Your task to perform on an android device: open device folders in google photos Image 0: 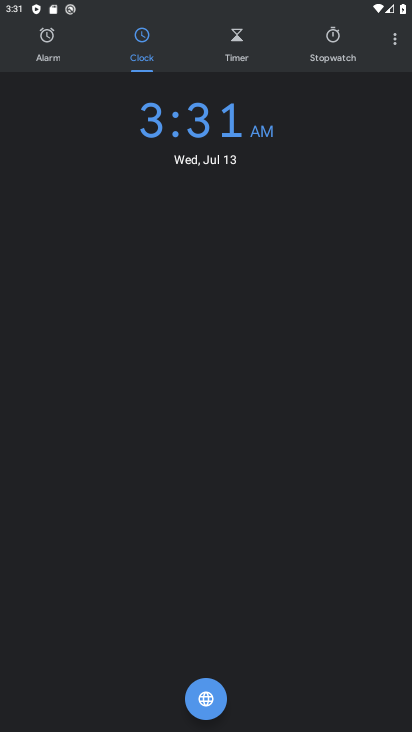
Step 0: press home button
Your task to perform on an android device: open device folders in google photos Image 1: 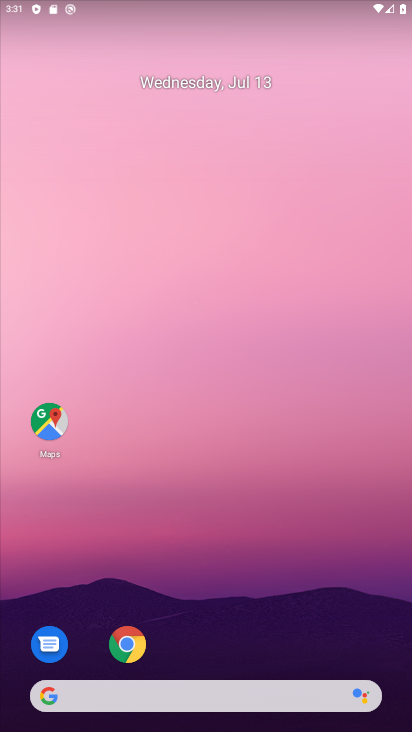
Step 1: drag from (251, 586) to (168, 0)
Your task to perform on an android device: open device folders in google photos Image 2: 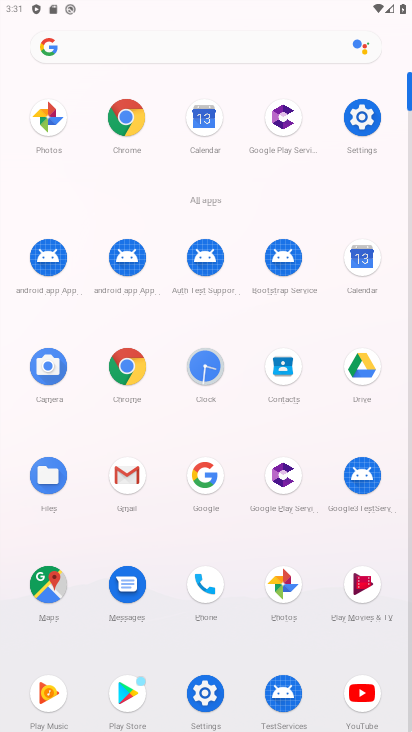
Step 2: click (297, 584)
Your task to perform on an android device: open device folders in google photos Image 3: 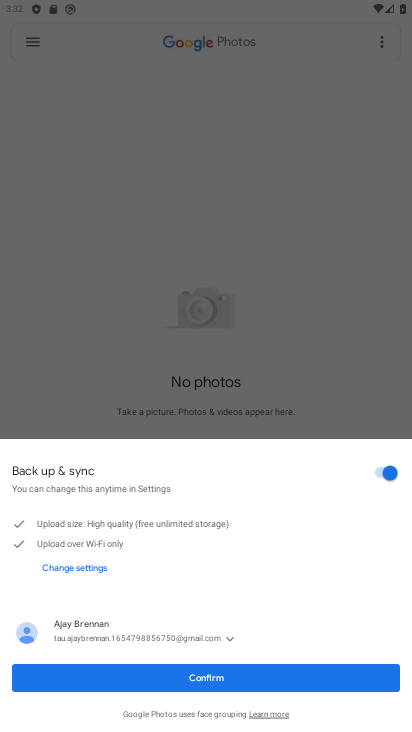
Step 3: click (245, 676)
Your task to perform on an android device: open device folders in google photos Image 4: 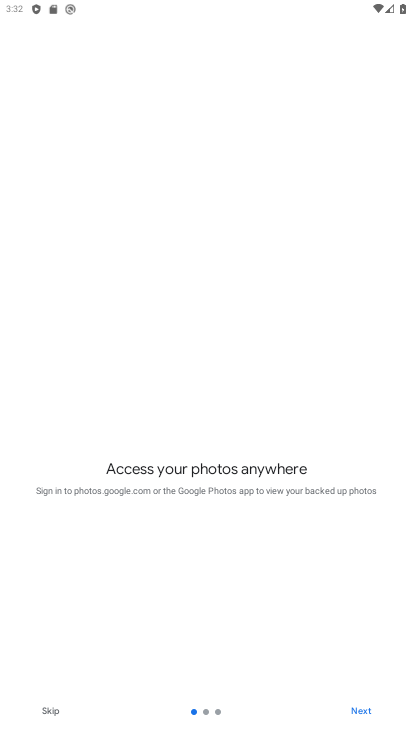
Step 4: click (344, 707)
Your task to perform on an android device: open device folders in google photos Image 5: 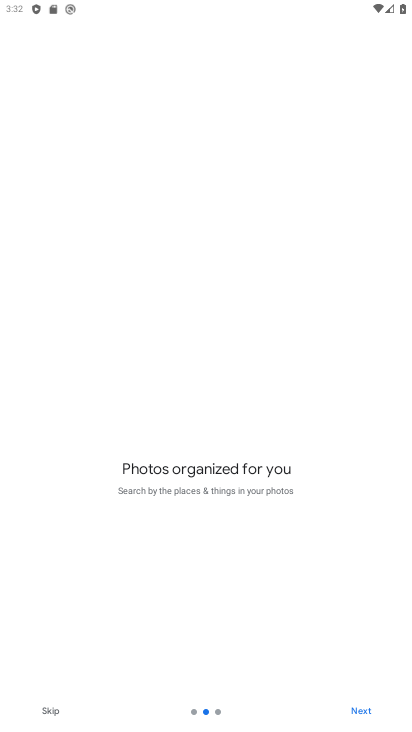
Step 5: click (361, 705)
Your task to perform on an android device: open device folders in google photos Image 6: 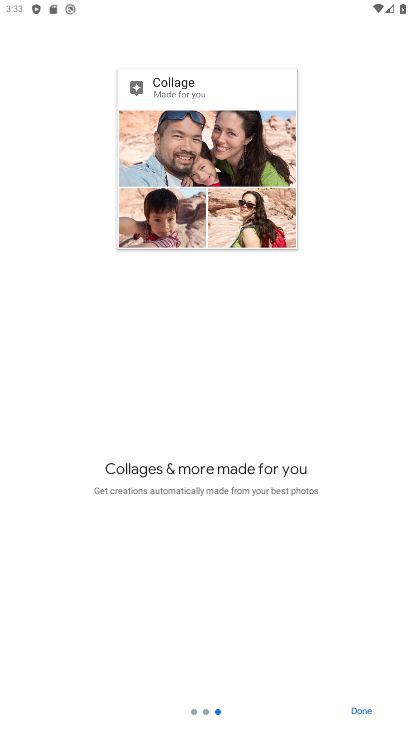
Step 6: click (361, 705)
Your task to perform on an android device: open device folders in google photos Image 7: 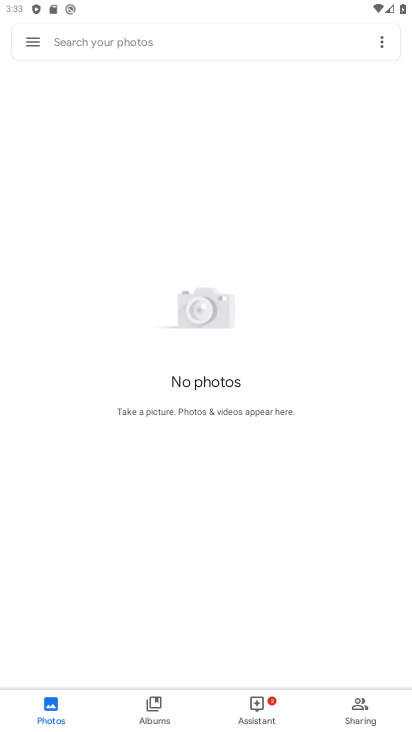
Step 7: click (23, 44)
Your task to perform on an android device: open device folders in google photos Image 8: 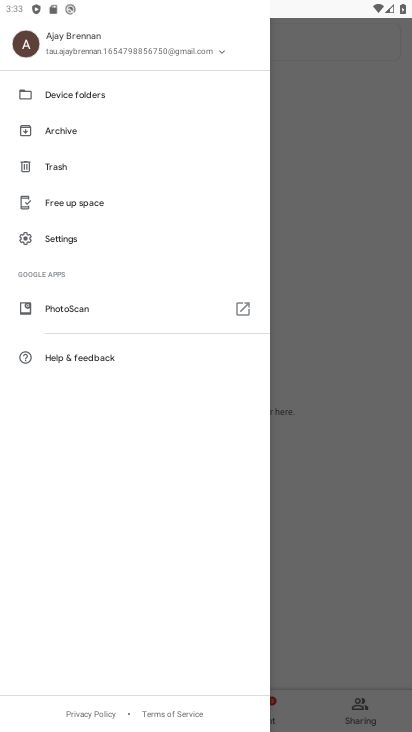
Step 8: click (72, 89)
Your task to perform on an android device: open device folders in google photos Image 9: 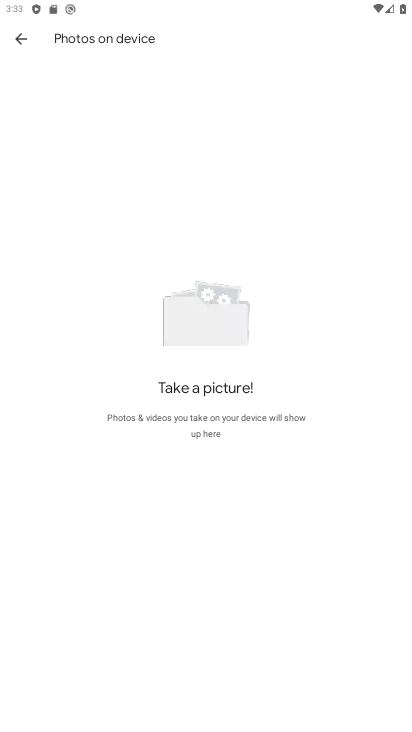
Step 9: task complete